Your task to perform on an android device: set the stopwatch Image 0: 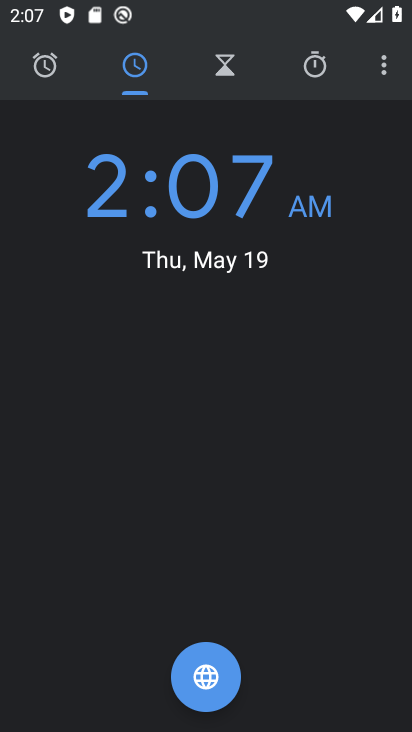
Step 0: press home button
Your task to perform on an android device: set the stopwatch Image 1: 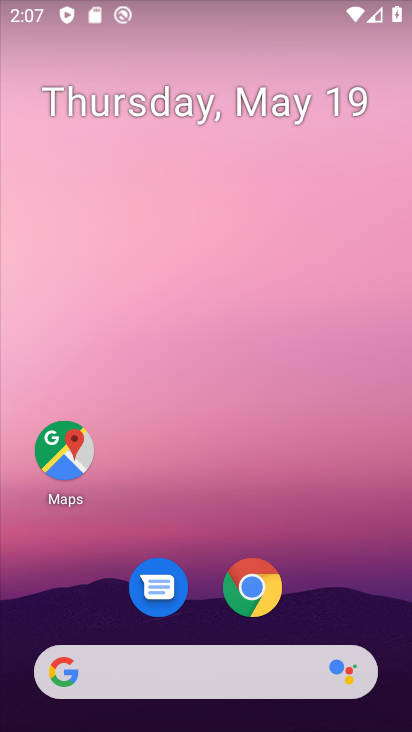
Step 1: click (212, 695)
Your task to perform on an android device: set the stopwatch Image 2: 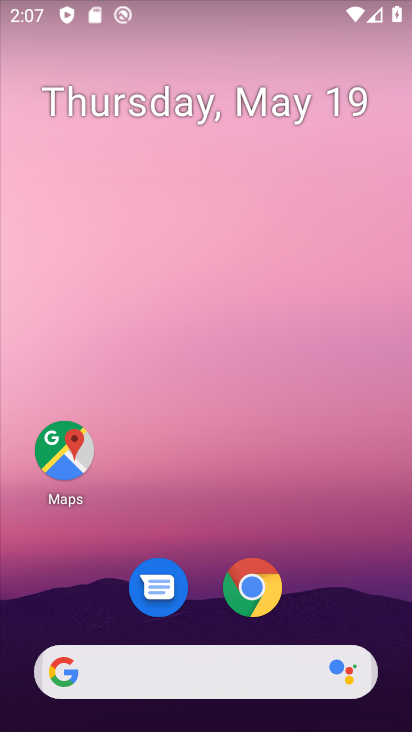
Step 2: click (215, 63)
Your task to perform on an android device: set the stopwatch Image 3: 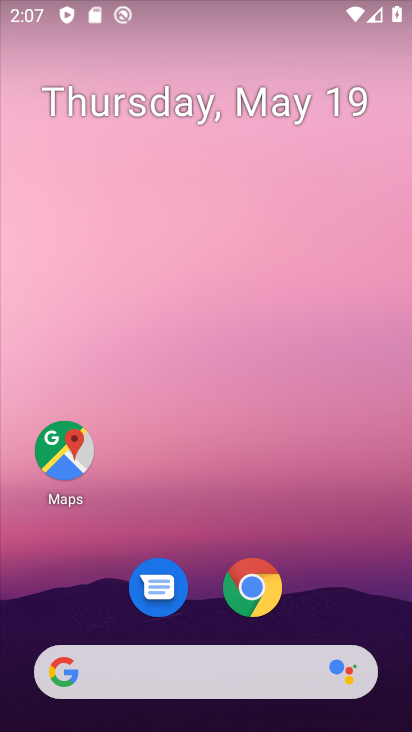
Step 3: drag from (217, 726) to (217, 183)
Your task to perform on an android device: set the stopwatch Image 4: 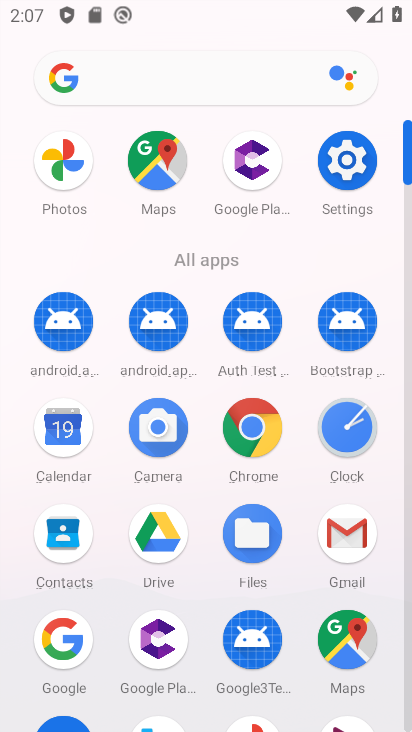
Step 4: click (337, 445)
Your task to perform on an android device: set the stopwatch Image 5: 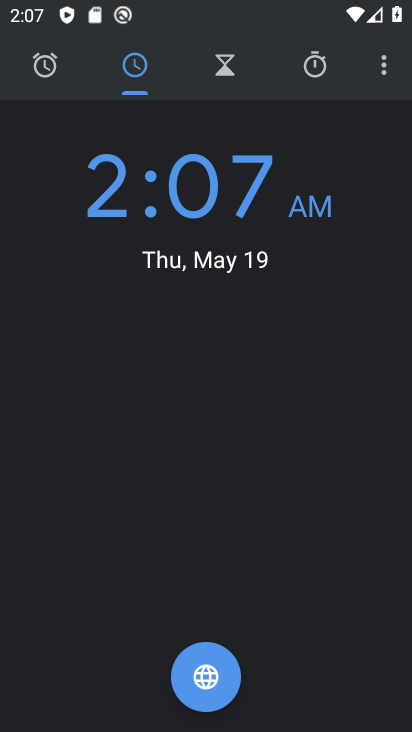
Step 5: click (311, 69)
Your task to perform on an android device: set the stopwatch Image 6: 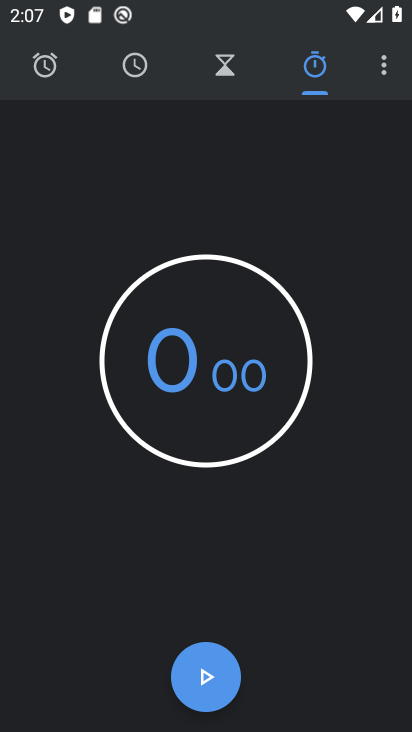
Step 6: click (196, 377)
Your task to perform on an android device: set the stopwatch Image 7: 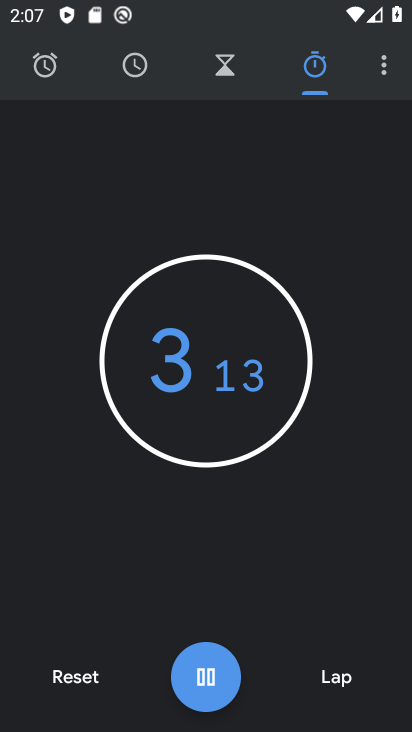
Step 7: type "78"
Your task to perform on an android device: set the stopwatch Image 8: 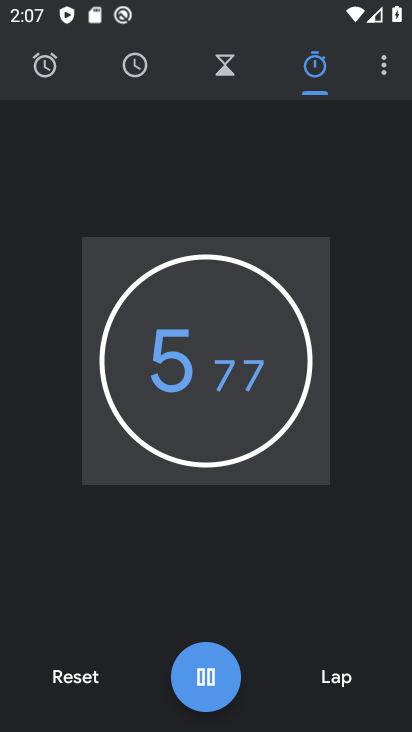
Step 8: task complete